Your task to perform on an android device: Go to Google Image 0: 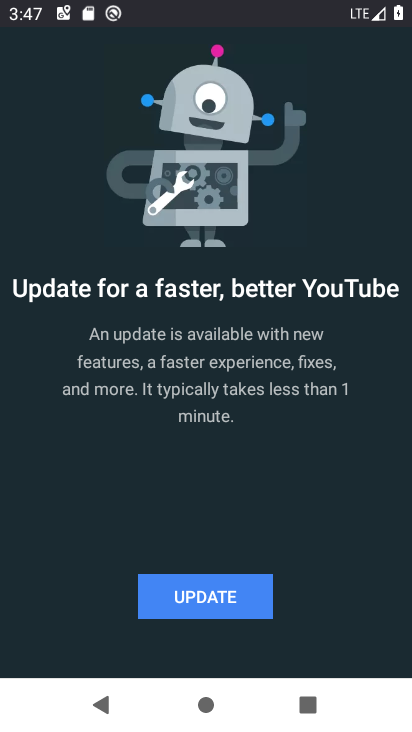
Step 0: press home button
Your task to perform on an android device: Go to Google Image 1: 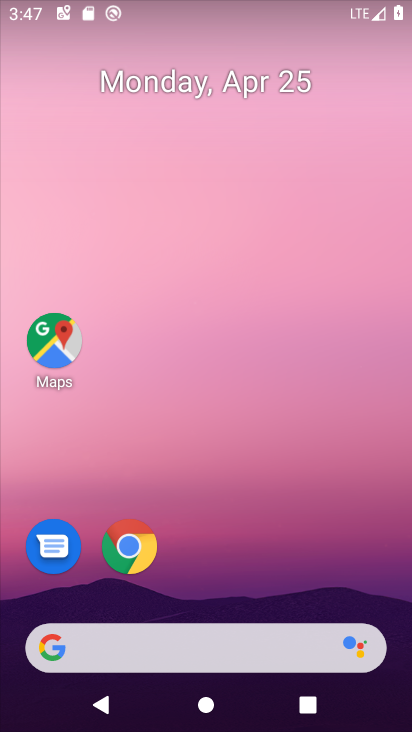
Step 1: drag from (276, 564) to (317, 138)
Your task to perform on an android device: Go to Google Image 2: 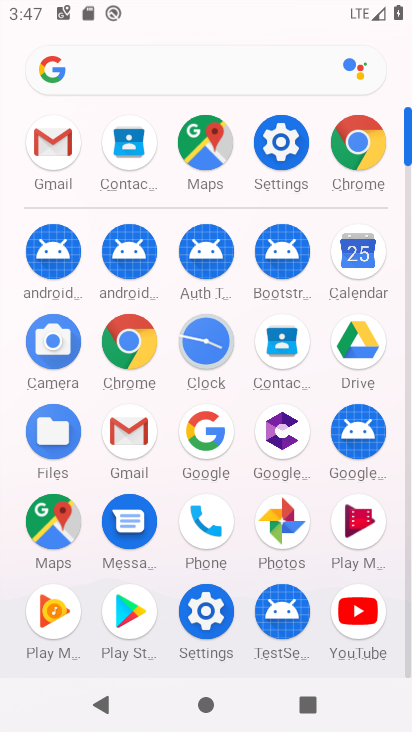
Step 2: click (213, 422)
Your task to perform on an android device: Go to Google Image 3: 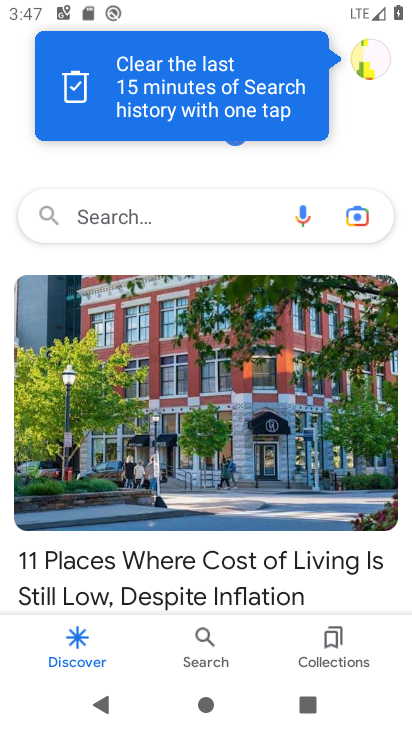
Step 3: task complete